Your task to perform on an android device: What's the weather? Image 0: 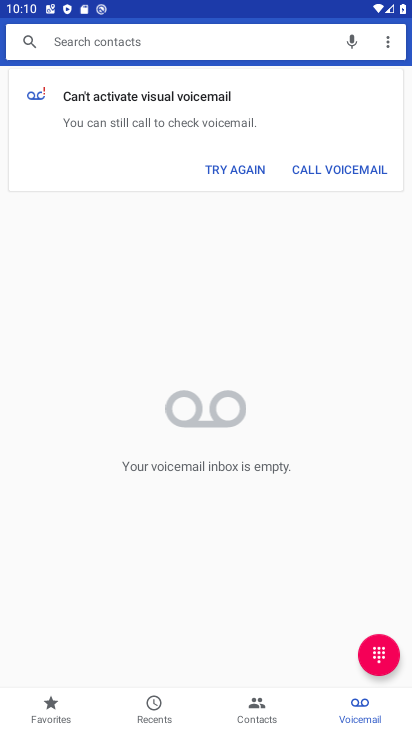
Step 0: press home button
Your task to perform on an android device: What's the weather? Image 1: 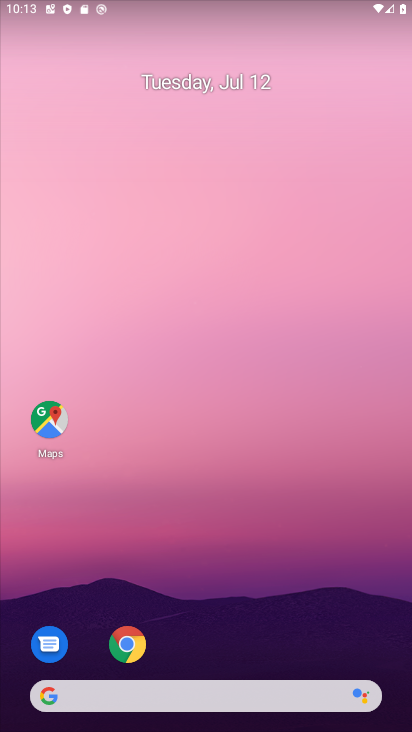
Step 1: click (163, 691)
Your task to perform on an android device: What's the weather? Image 2: 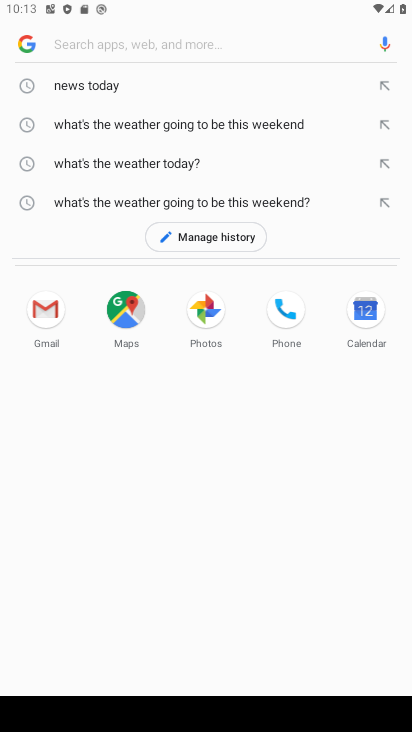
Step 2: type "What's the weather?"
Your task to perform on an android device: What's the weather? Image 3: 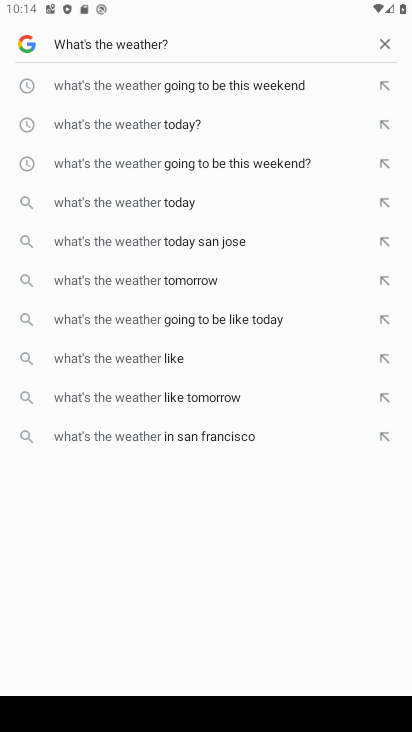
Step 3: press enter
Your task to perform on an android device: What's the weather? Image 4: 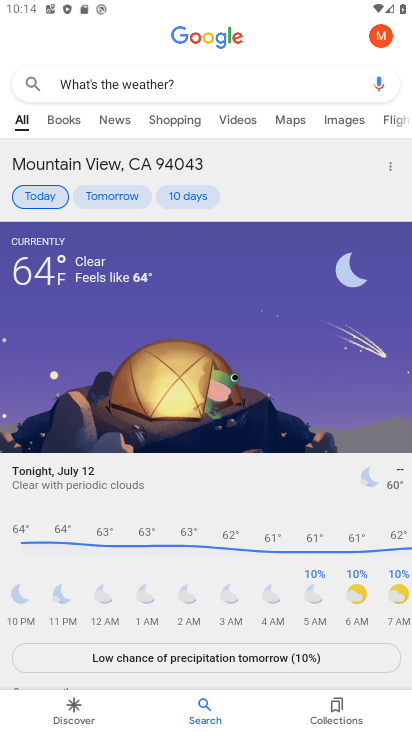
Step 4: task complete